Your task to perform on an android device: turn off location history Image 0: 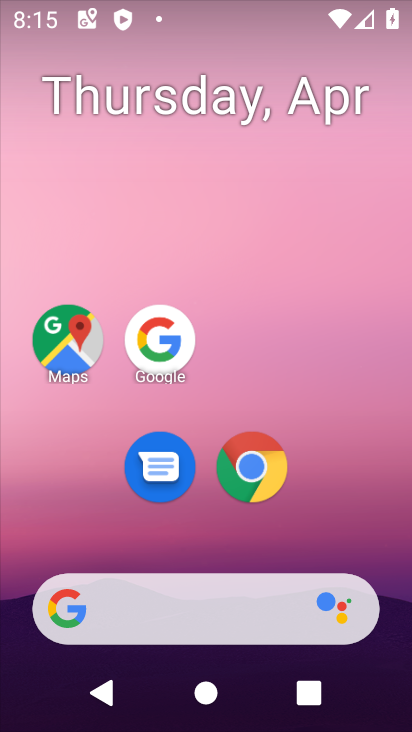
Step 0: drag from (252, 623) to (166, 86)
Your task to perform on an android device: turn off location history Image 1: 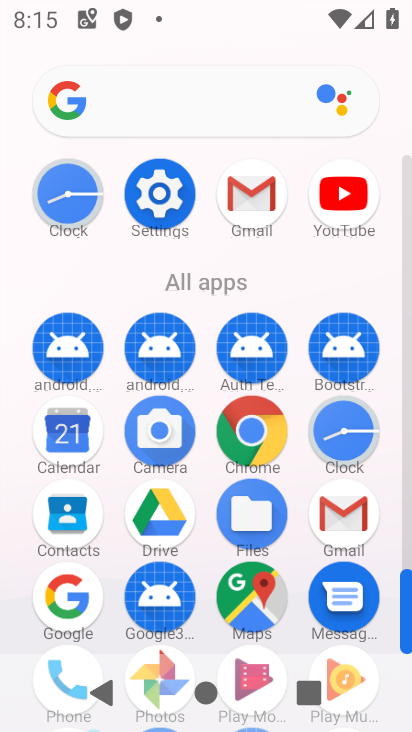
Step 1: click (165, 181)
Your task to perform on an android device: turn off location history Image 2: 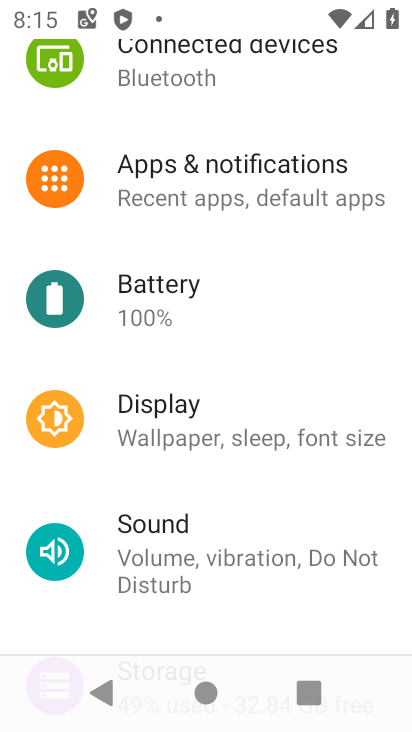
Step 2: drag from (233, 528) to (280, 605)
Your task to perform on an android device: turn off location history Image 3: 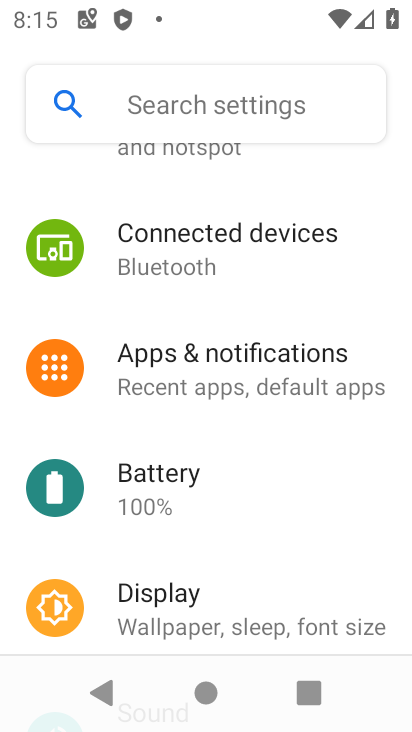
Step 3: drag from (199, 234) to (213, 592)
Your task to perform on an android device: turn off location history Image 4: 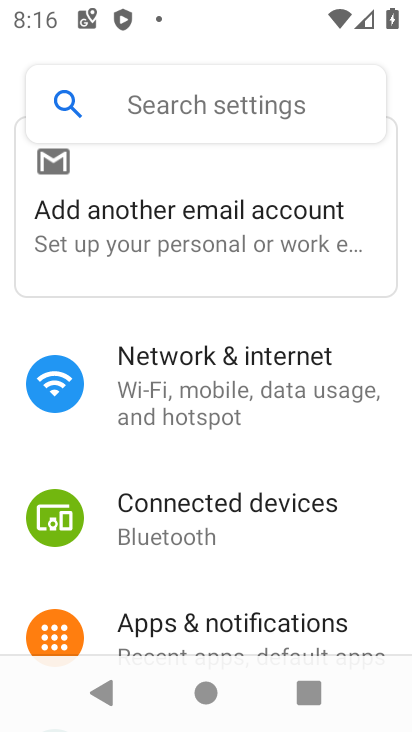
Step 4: drag from (217, 579) to (189, 19)
Your task to perform on an android device: turn off location history Image 5: 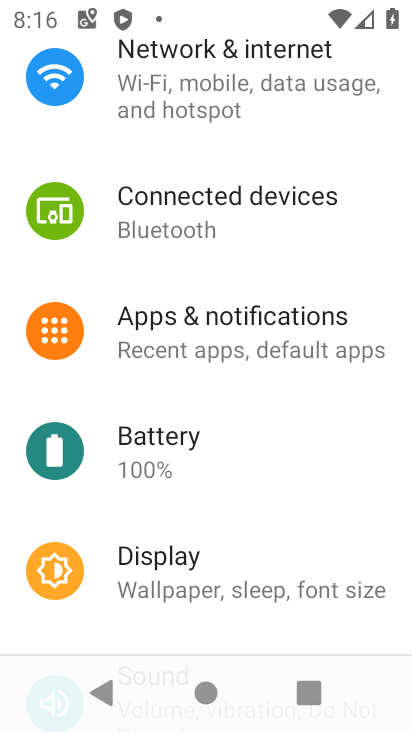
Step 5: drag from (263, 544) to (362, 38)
Your task to perform on an android device: turn off location history Image 6: 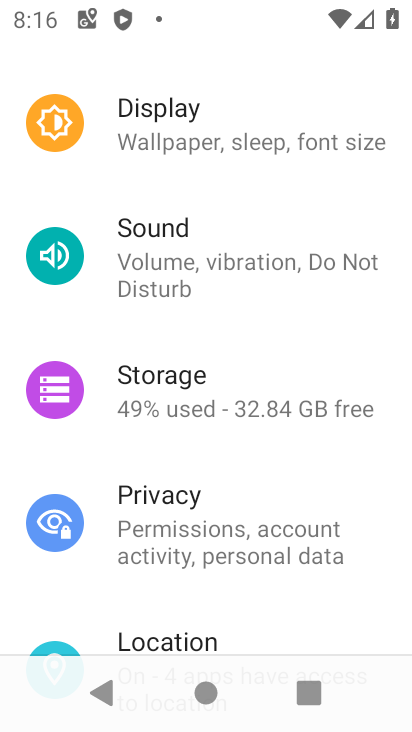
Step 6: drag from (213, 578) to (270, 218)
Your task to perform on an android device: turn off location history Image 7: 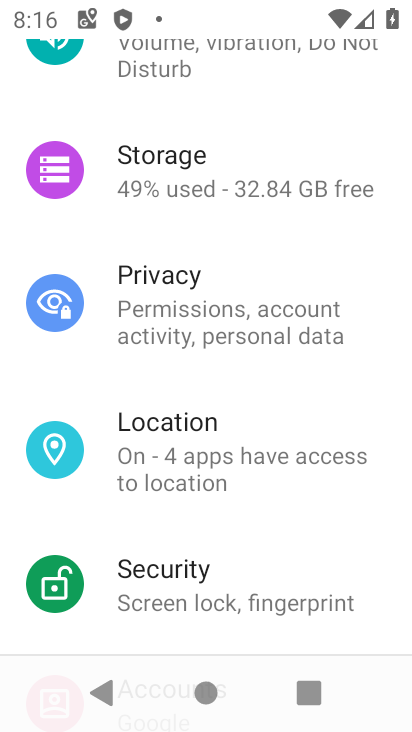
Step 7: click (221, 421)
Your task to perform on an android device: turn off location history Image 8: 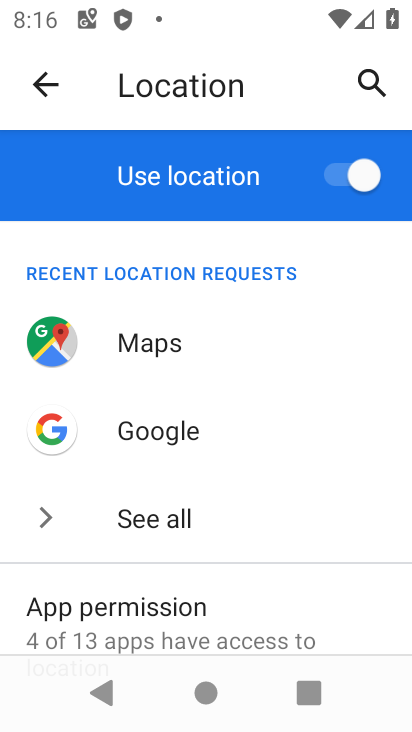
Step 8: drag from (187, 576) to (155, 0)
Your task to perform on an android device: turn off location history Image 9: 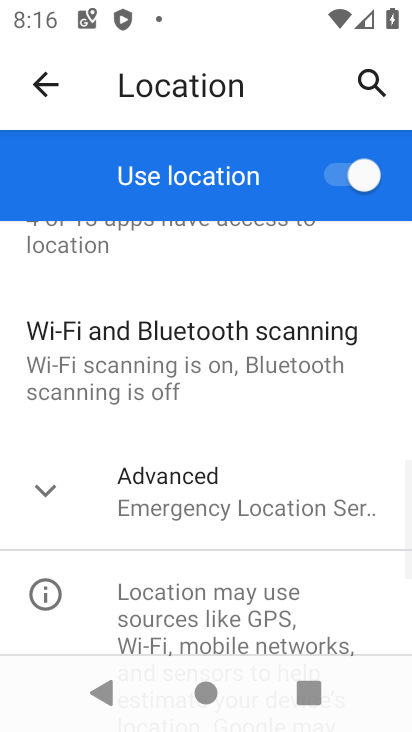
Step 9: click (244, 519)
Your task to perform on an android device: turn off location history Image 10: 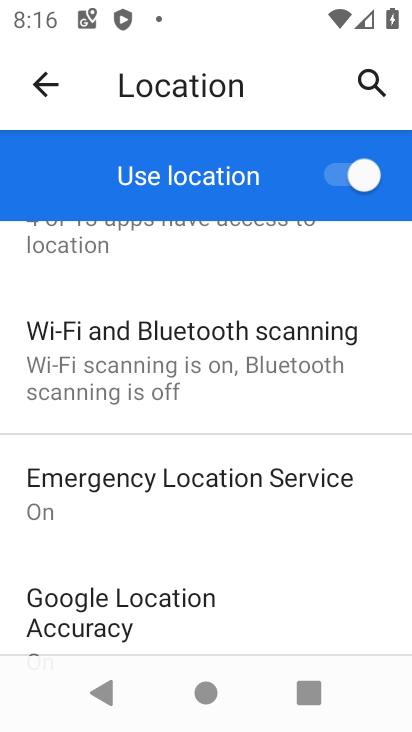
Step 10: drag from (291, 611) to (380, 191)
Your task to perform on an android device: turn off location history Image 11: 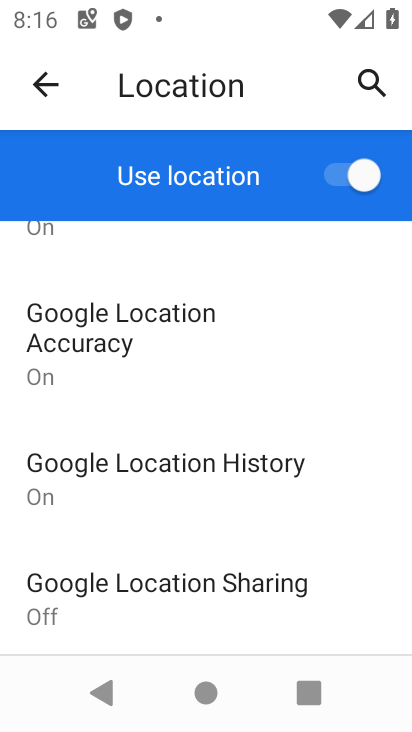
Step 11: click (182, 472)
Your task to perform on an android device: turn off location history Image 12: 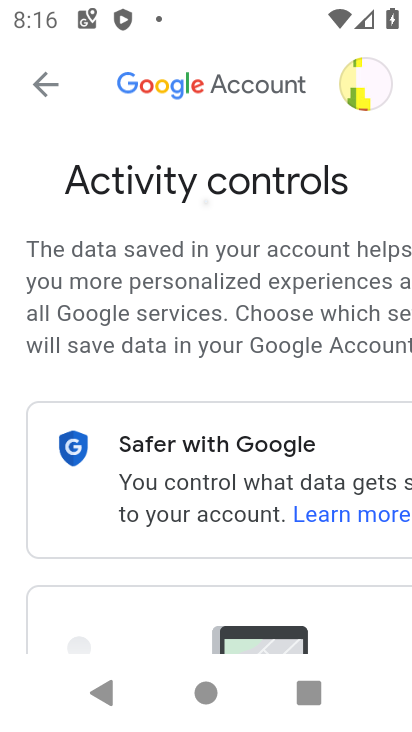
Step 12: drag from (300, 581) to (367, 12)
Your task to perform on an android device: turn off location history Image 13: 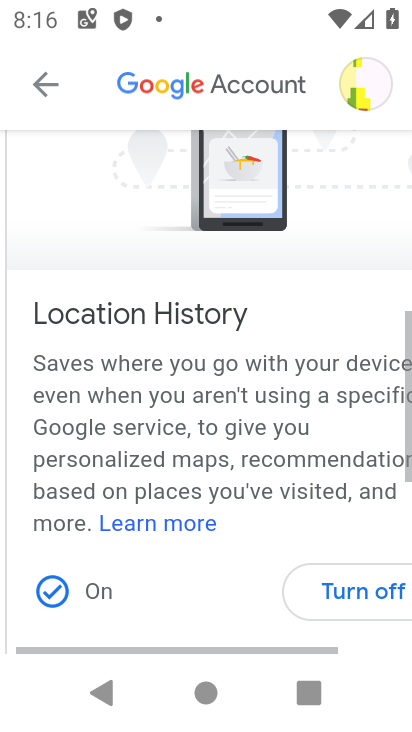
Step 13: drag from (316, 542) to (75, 327)
Your task to perform on an android device: turn off location history Image 14: 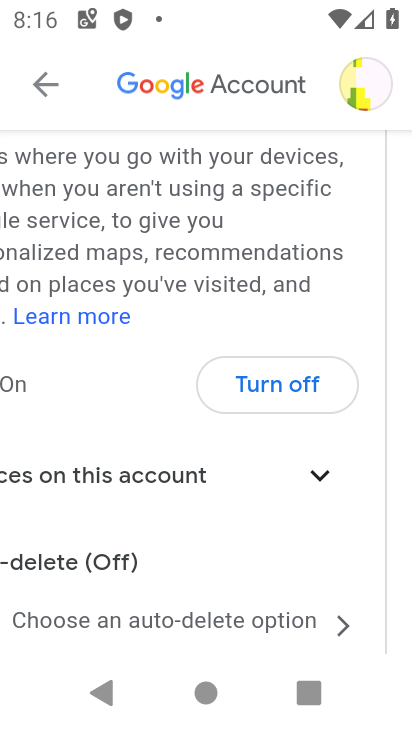
Step 14: click (271, 391)
Your task to perform on an android device: turn off location history Image 15: 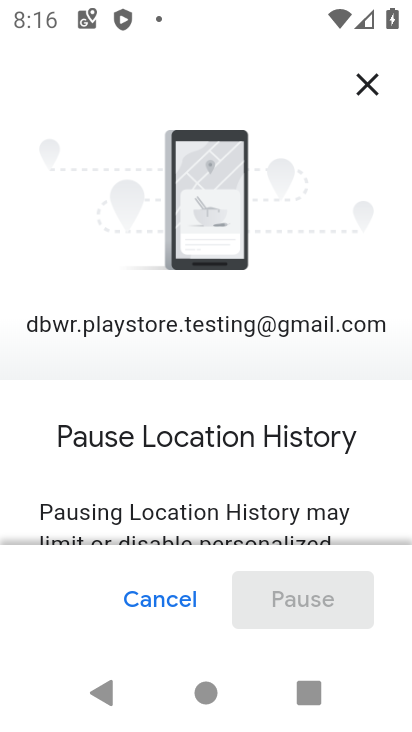
Step 15: drag from (277, 509) to (165, 12)
Your task to perform on an android device: turn off location history Image 16: 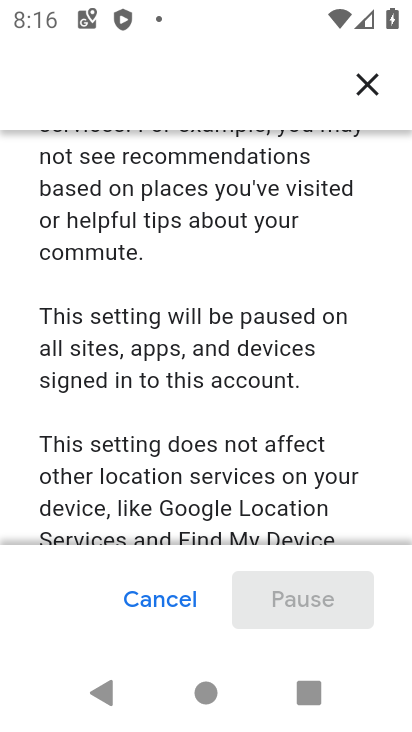
Step 16: drag from (269, 498) to (207, 44)
Your task to perform on an android device: turn off location history Image 17: 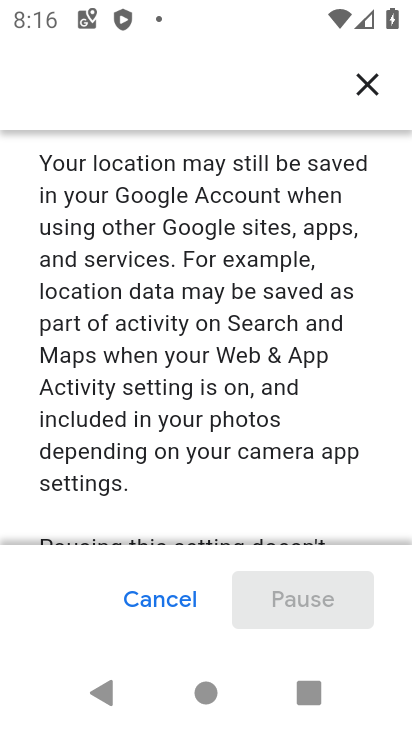
Step 17: drag from (286, 425) to (168, 32)
Your task to perform on an android device: turn off location history Image 18: 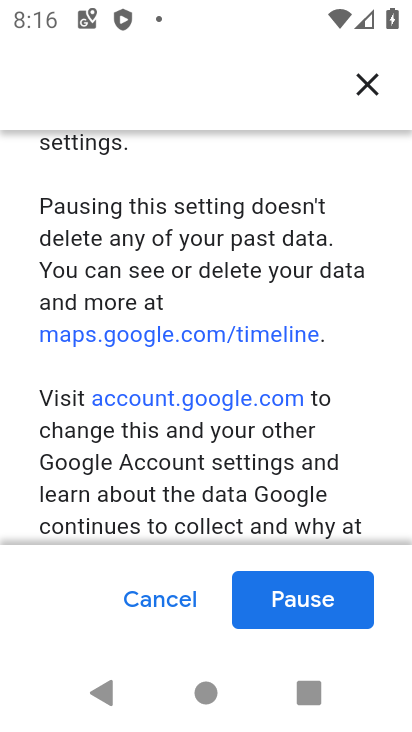
Step 18: click (308, 602)
Your task to perform on an android device: turn off location history Image 19: 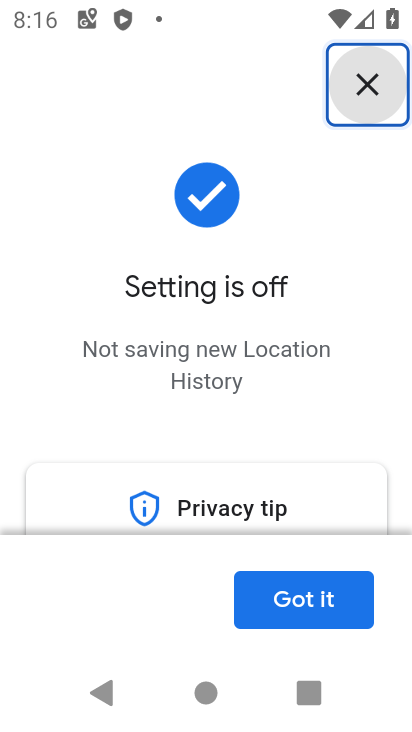
Step 19: click (318, 617)
Your task to perform on an android device: turn off location history Image 20: 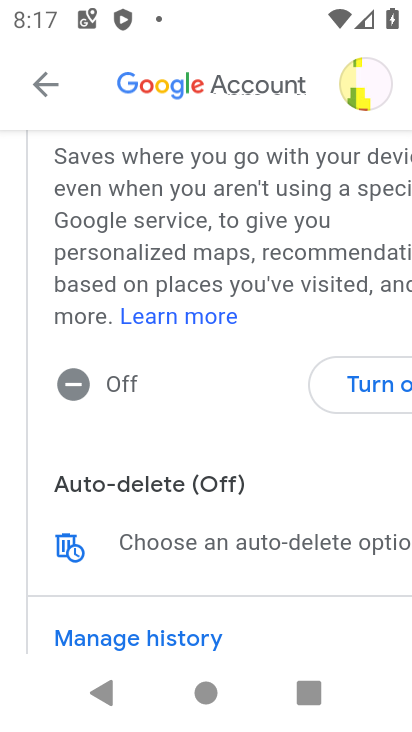
Step 20: task complete